Your task to perform on an android device: toggle data saver in the chrome app Image 0: 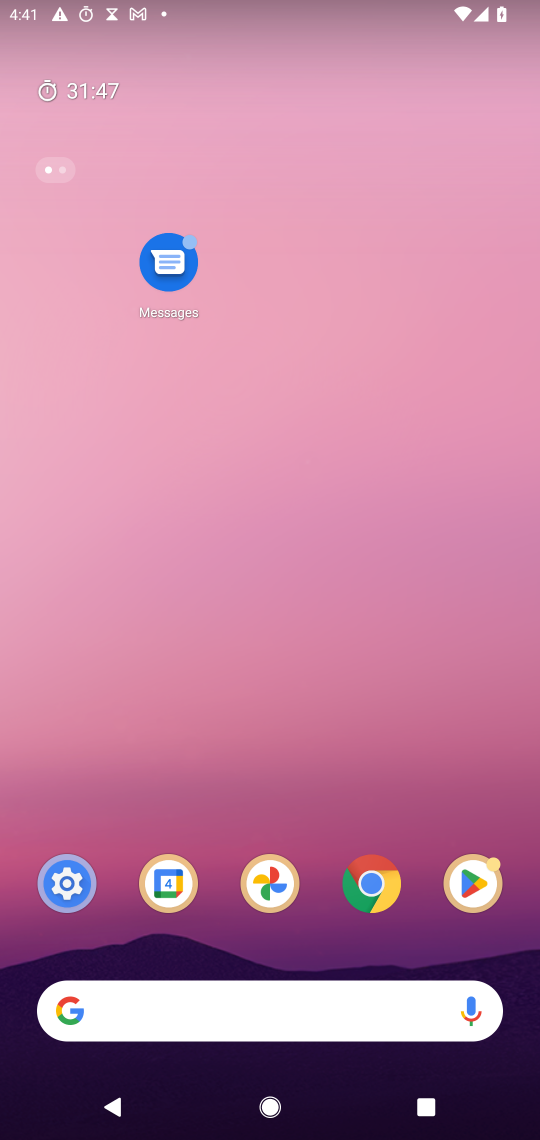
Step 0: click (373, 881)
Your task to perform on an android device: toggle data saver in the chrome app Image 1: 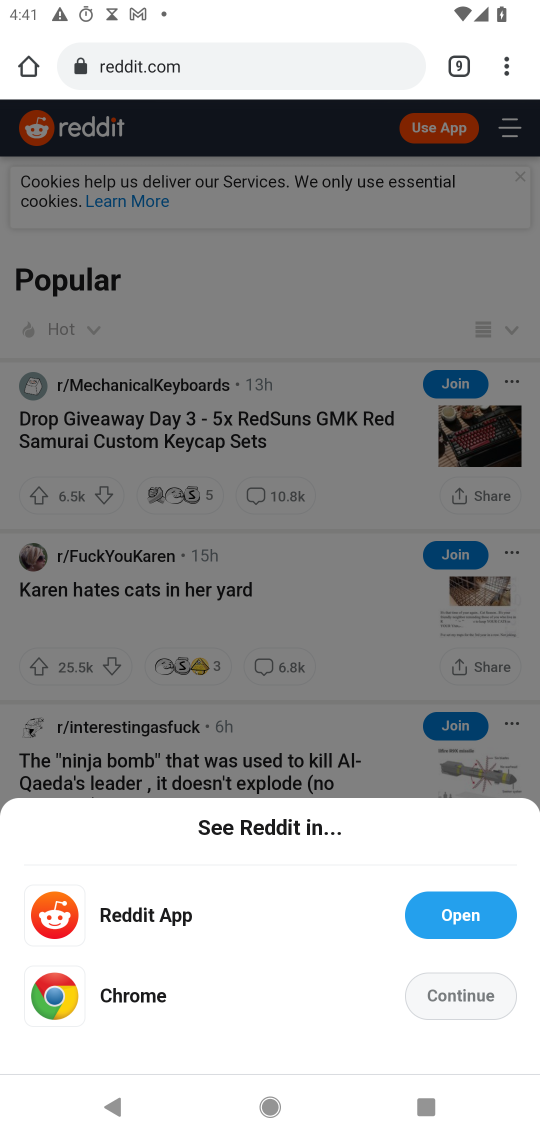
Step 1: click (506, 71)
Your task to perform on an android device: toggle data saver in the chrome app Image 2: 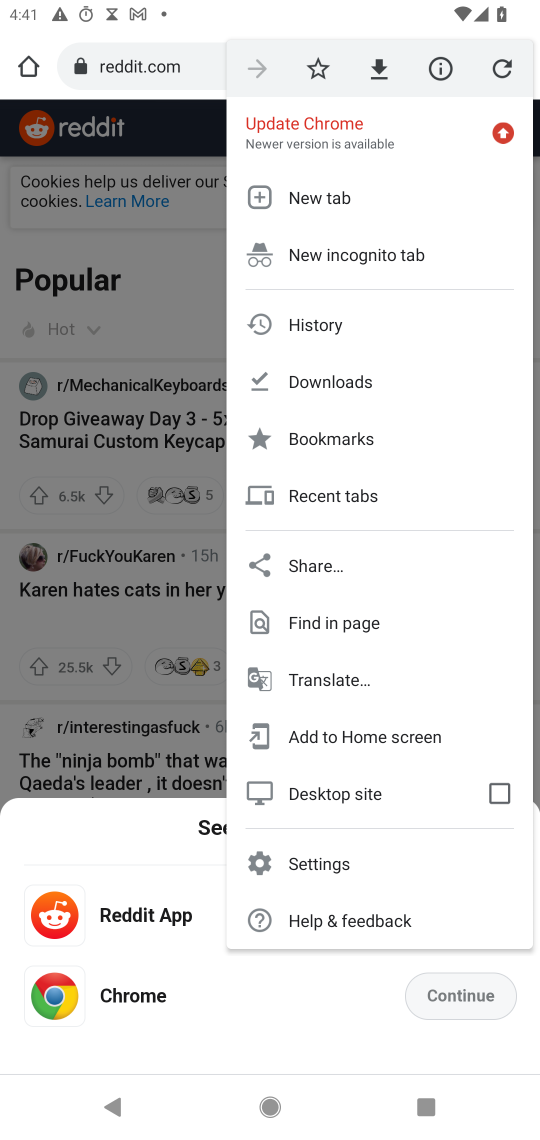
Step 2: click (321, 859)
Your task to perform on an android device: toggle data saver in the chrome app Image 3: 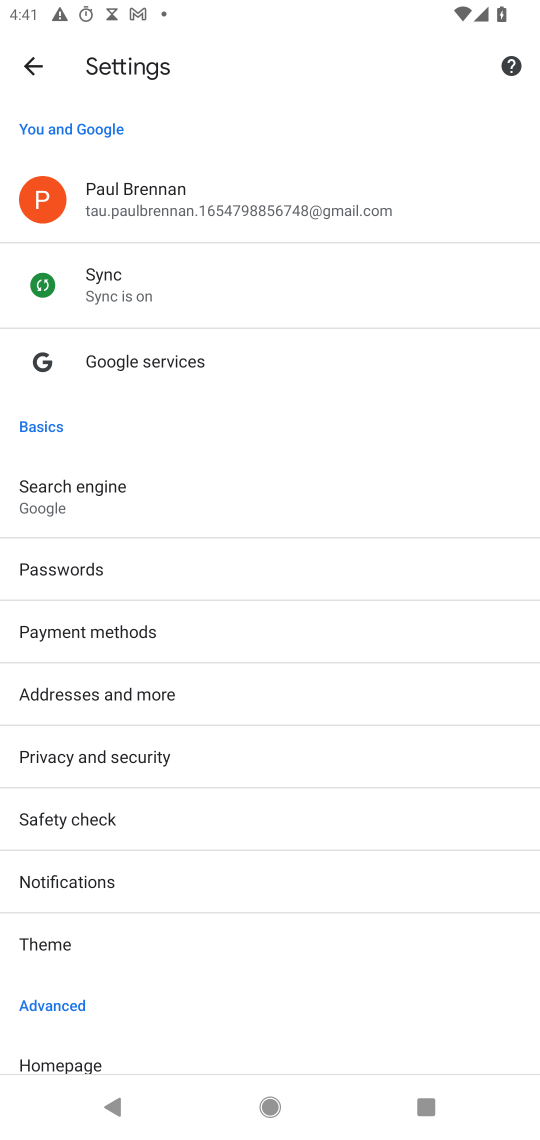
Step 3: drag from (130, 1035) to (131, 582)
Your task to perform on an android device: toggle data saver in the chrome app Image 4: 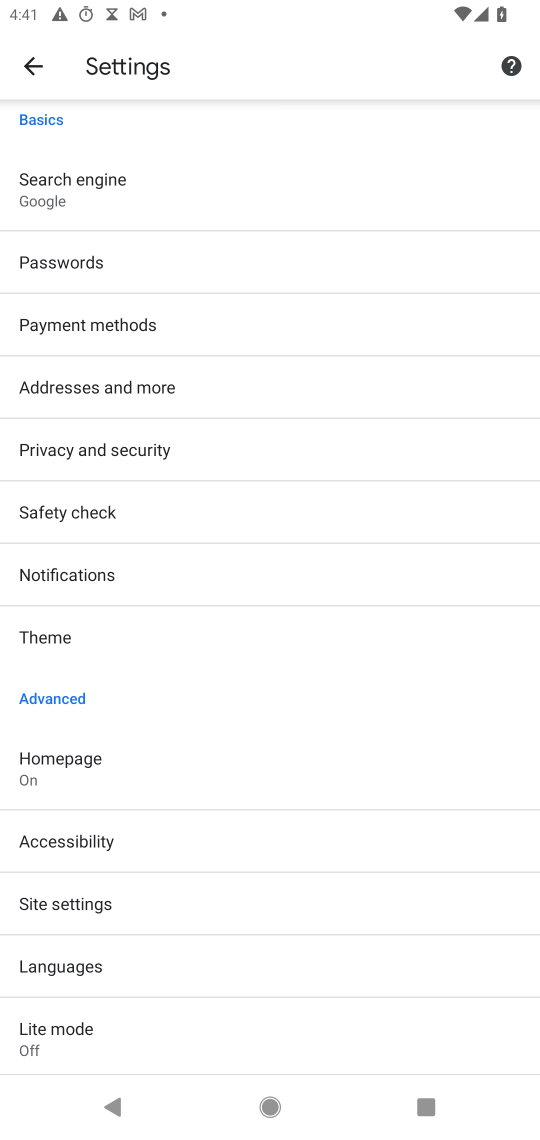
Step 4: click (54, 1034)
Your task to perform on an android device: toggle data saver in the chrome app Image 5: 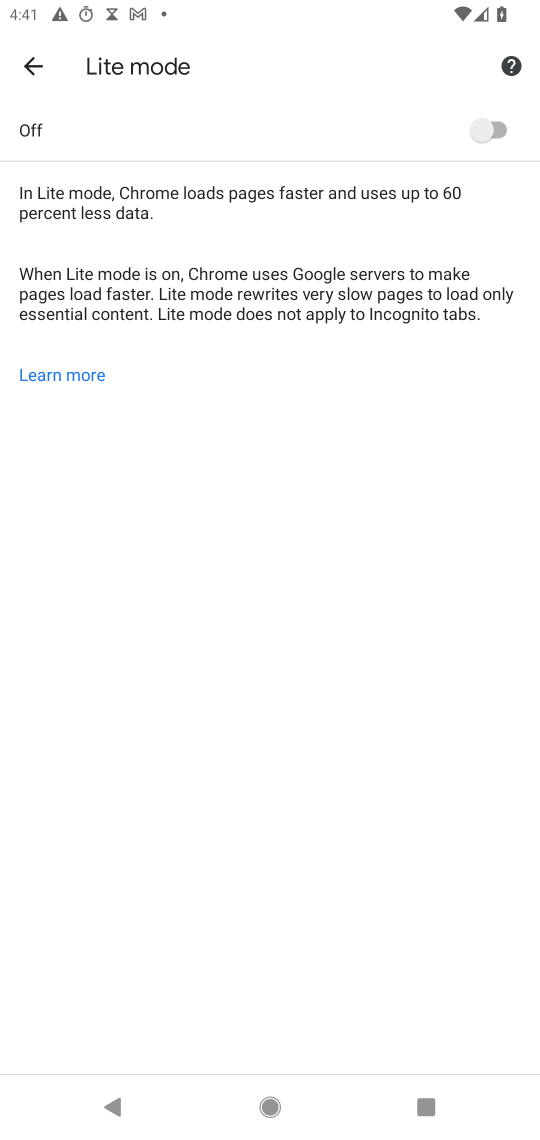
Step 5: click (501, 132)
Your task to perform on an android device: toggle data saver in the chrome app Image 6: 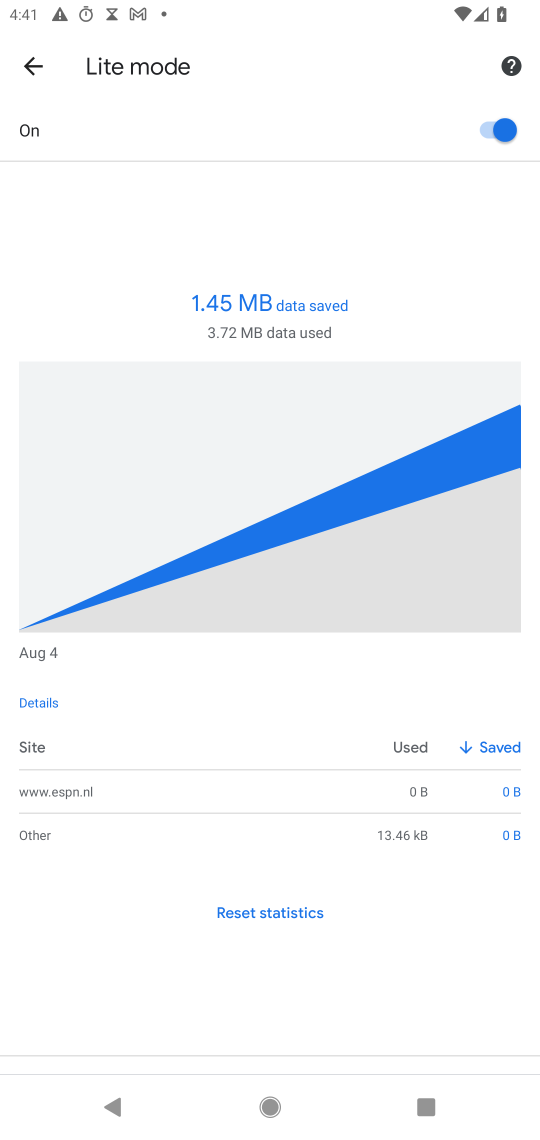
Step 6: task complete